Your task to perform on an android device: toggle airplane mode Image 0: 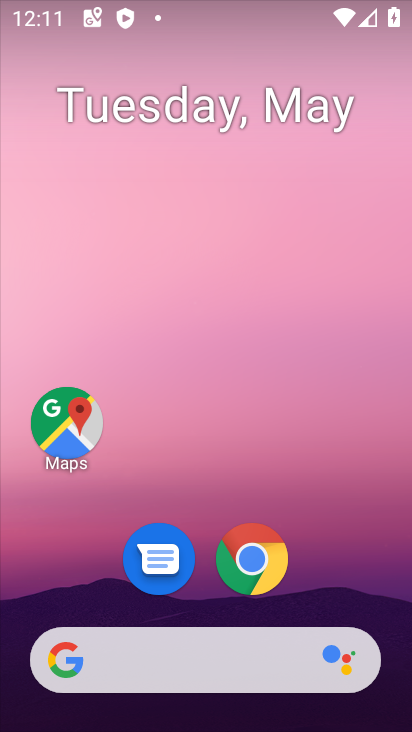
Step 0: drag from (350, 569) to (354, 108)
Your task to perform on an android device: toggle airplane mode Image 1: 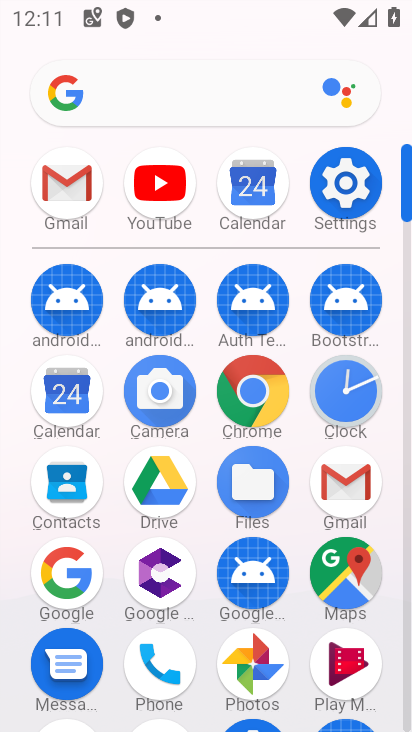
Step 1: click (338, 203)
Your task to perform on an android device: toggle airplane mode Image 2: 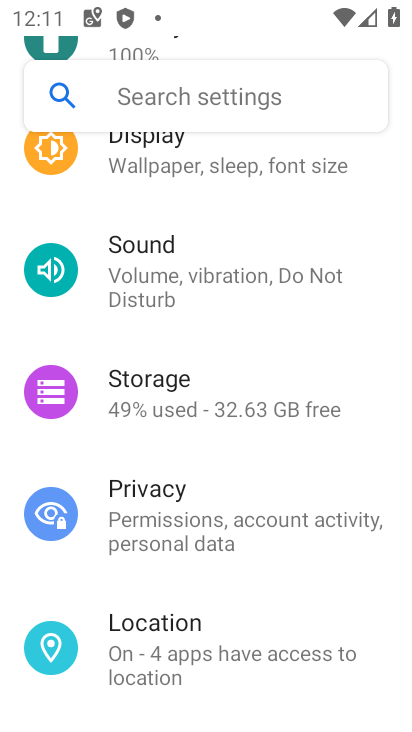
Step 2: drag from (248, 228) to (343, 705)
Your task to perform on an android device: toggle airplane mode Image 3: 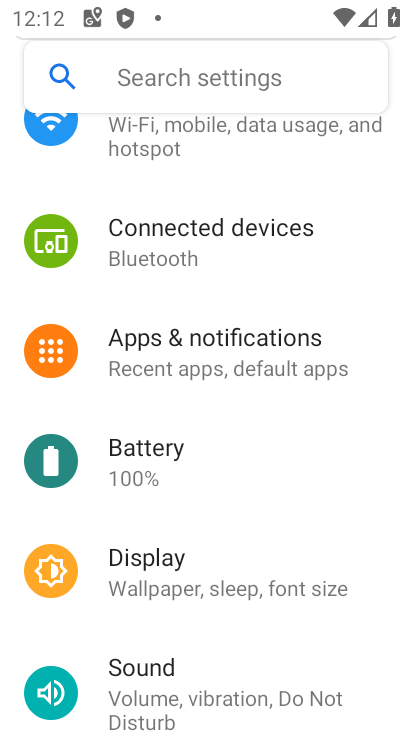
Step 3: drag from (269, 201) to (324, 371)
Your task to perform on an android device: toggle airplane mode Image 4: 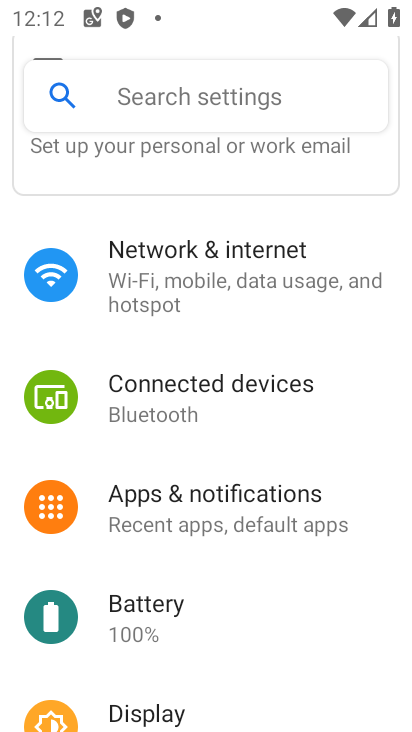
Step 4: click (306, 254)
Your task to perform on an android device: toggle airplane mode Image 5: 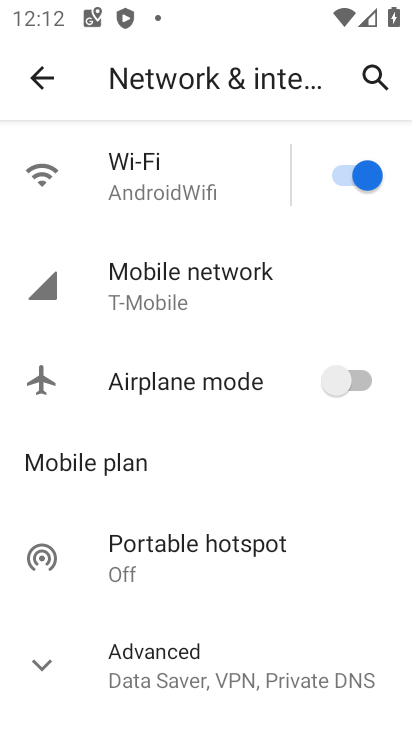
Step 5: click (354, 383)
Your task to perform on an android device: toggle airplane mode Image 6: 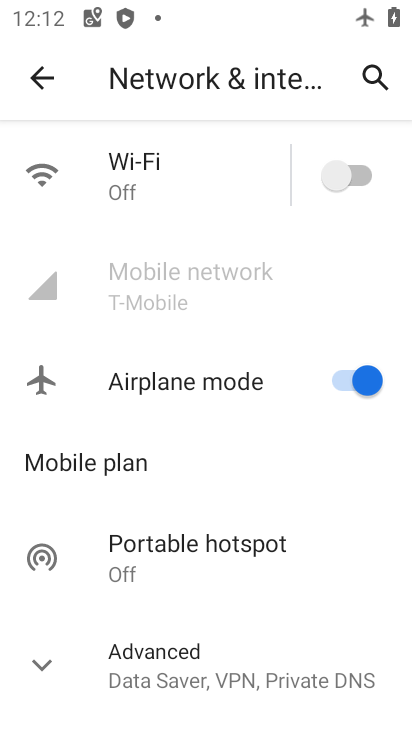
Step 6: task complete